Your task to perform on an android device: Open the web browser Image 0: 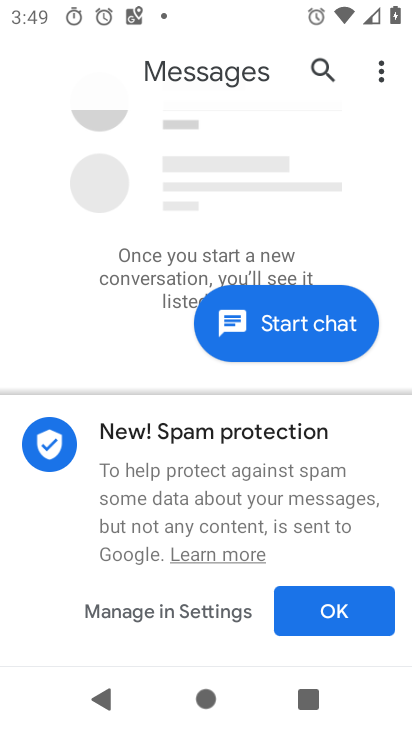
Step 0: press home button
Your task to perform on an android device: Open the web browser Image 1: 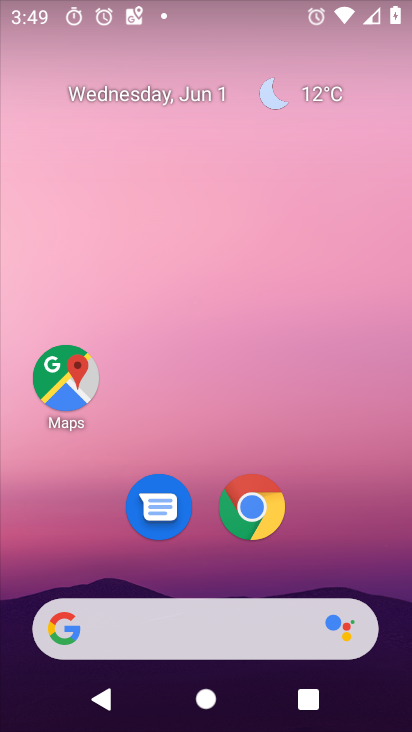
Step 1: click (254, 514)
Your task to perform on an android device: Open the web browser Image 2: 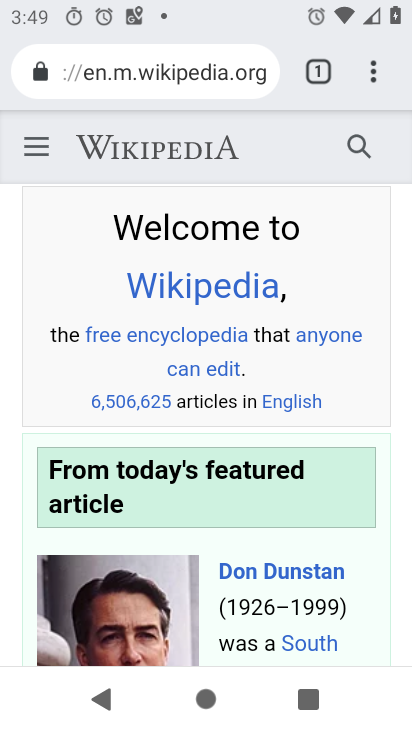
Step 2: task complete